Your task to perform on an android device: Open eBay Image 0: 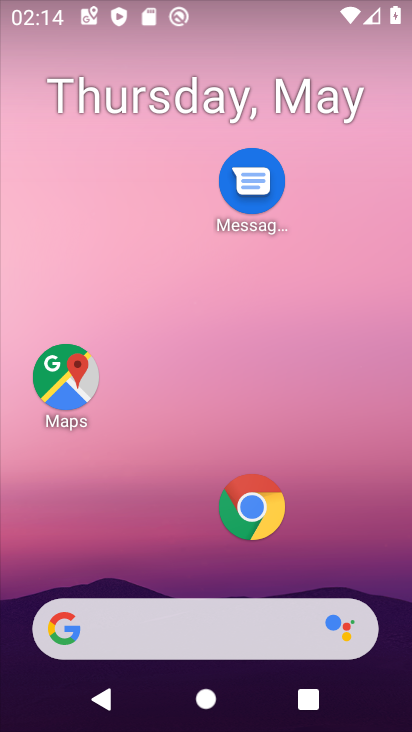
Step 0: drag from (213, 631) to (247, 134)
Your task to perform on an android device: Open eBay Image 1: 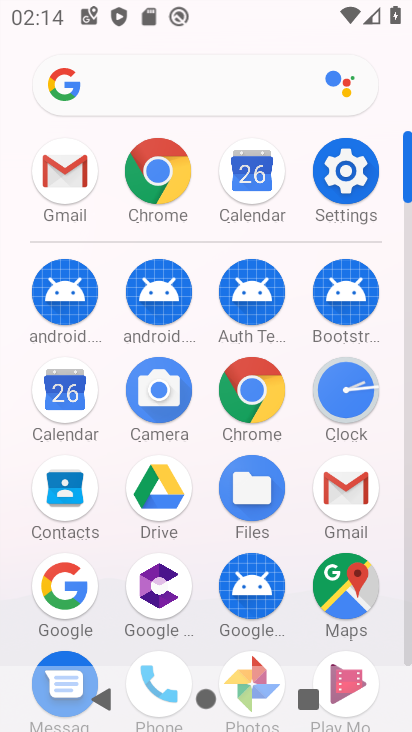
Step 1: click (247, 378)
Your task to perform on an android device: Open eBay Image 2: 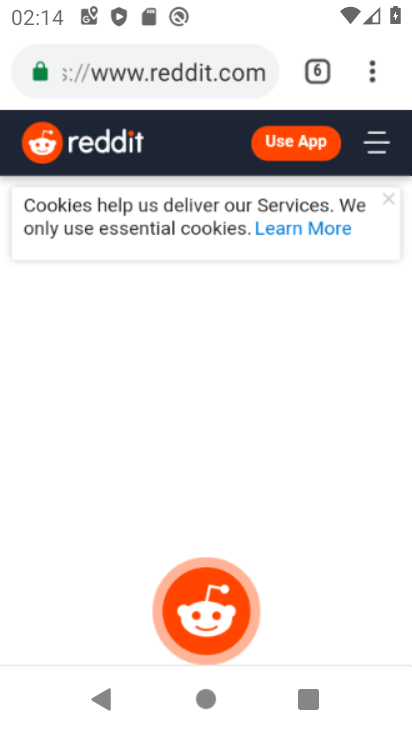
Step 2: click (213, 65)
Your task to perform on an android device: Open eBay Image 3: 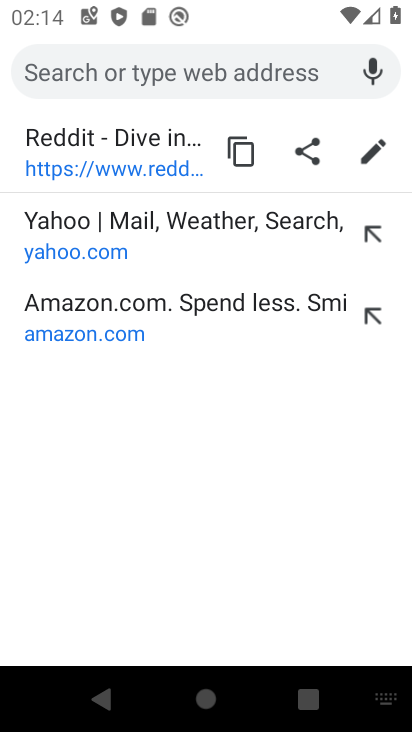
Step 3: type "ebay"
Your task to perform on an android device: Open eBay Image 4: 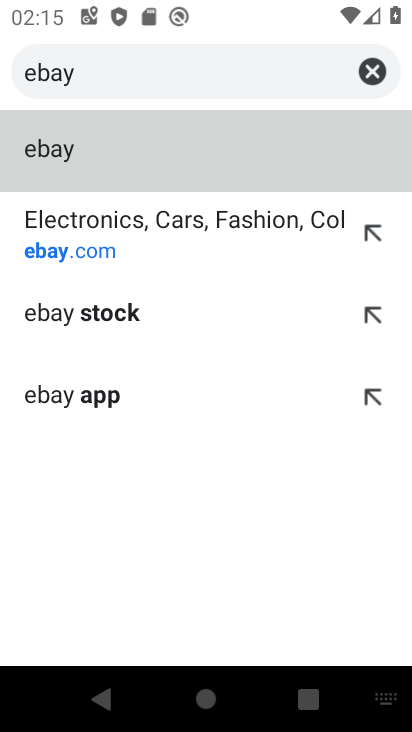
Step 4: click (90, 252)
Your task to perform on an android device: Open eBay Image 5: 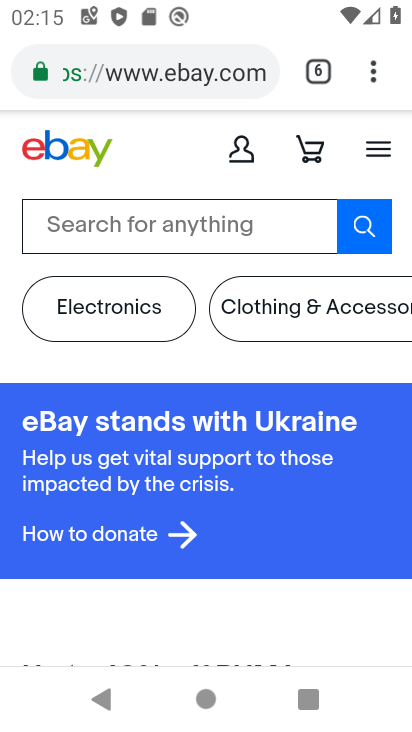
Step 5: task complete